Your task to perform on an android device: toggle data saver in the chrome app Image 0: 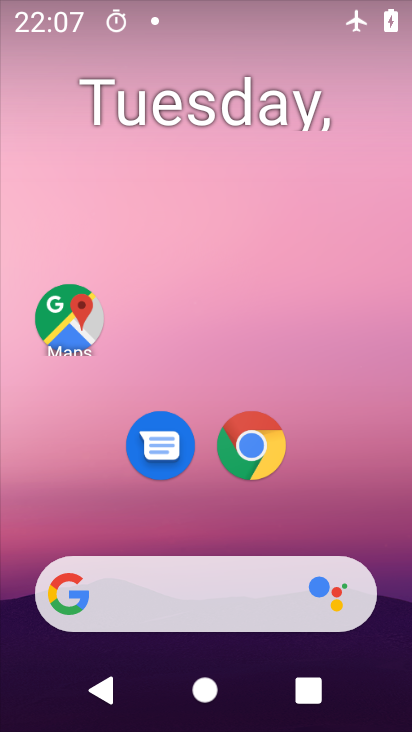
Step 0: click (241, 451)
Your task to perform on an android device: toggle data saver in the chrome app Image 1: 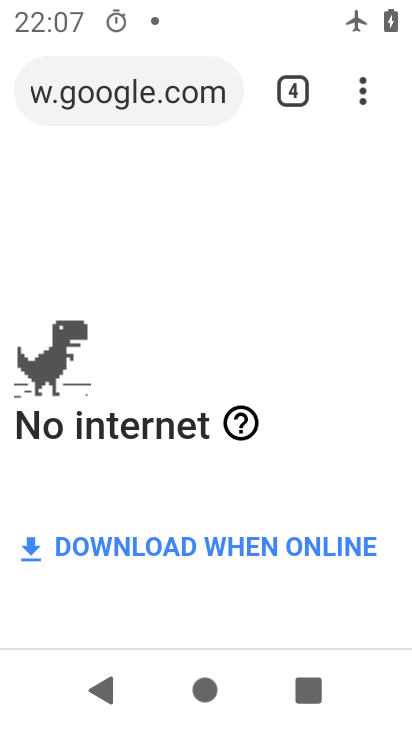
Step 1: click (383, 89)
Your task to perform on an android device: toggle data saver in the chrome app Image 2: 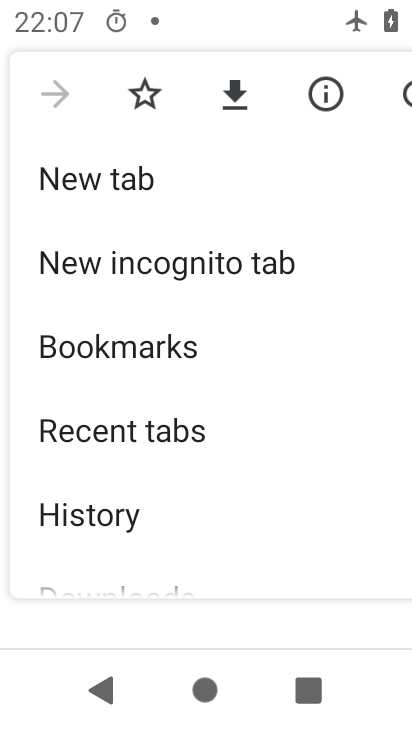
Step 2: drag from (225, 539) to (201, 10)
Your task to perform on an android device: toggle data saver in the chrome app Image 3: 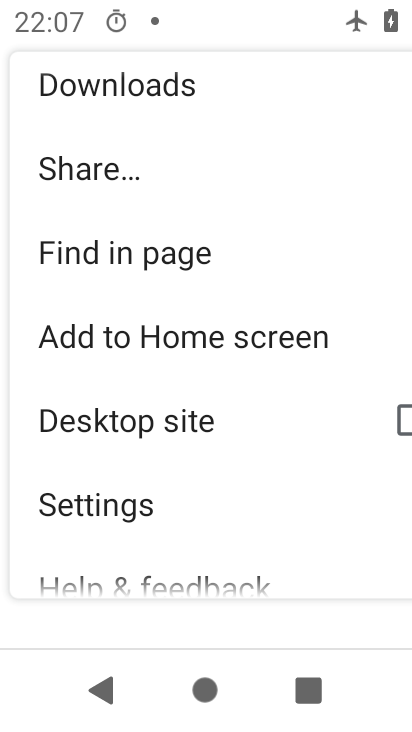
Step 3: click (171, 507)
Your task to perform on an android device: toggle data saver in the chrome app Image 4: 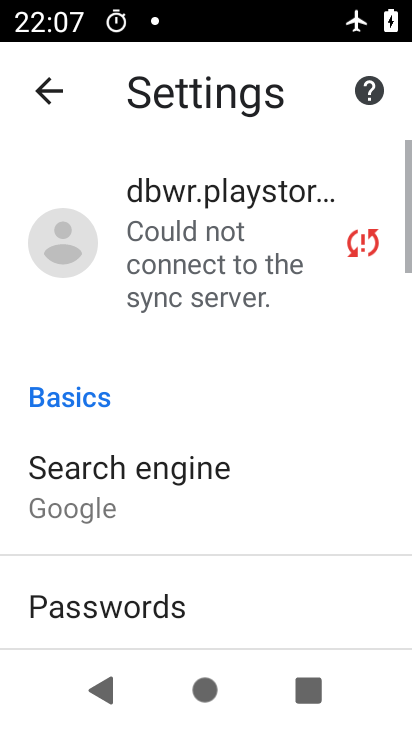
Step 4: drag from (171, 507) to (153, 276)
Your task to perform on an android device: toggle data saver in the chrome app Image 5: 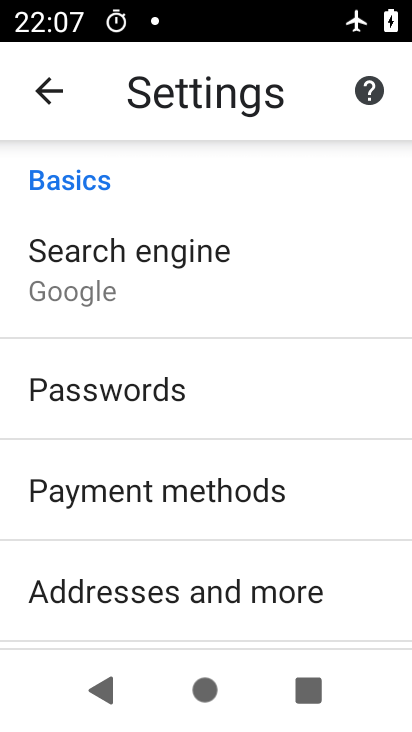
Step 5: drag from (207, 632) to (161, 143)
Your task to perform on an android device: toggle data saver in the chrome app Image 6: 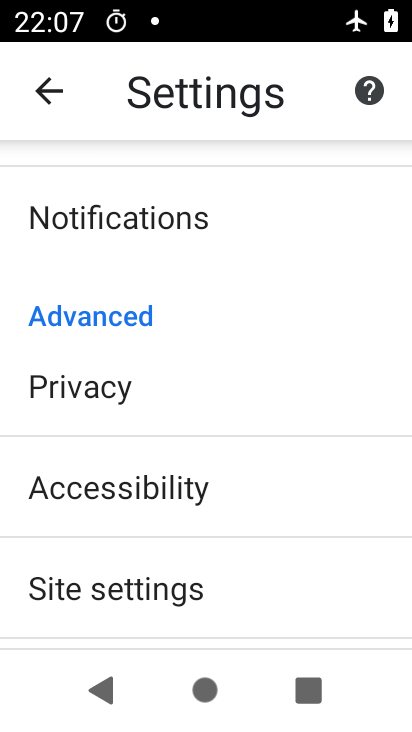
Step 6: drag from (221, 598) to (200, 164)
Your task to perform on an android device: toggle data saver in the chrome app Image 7: 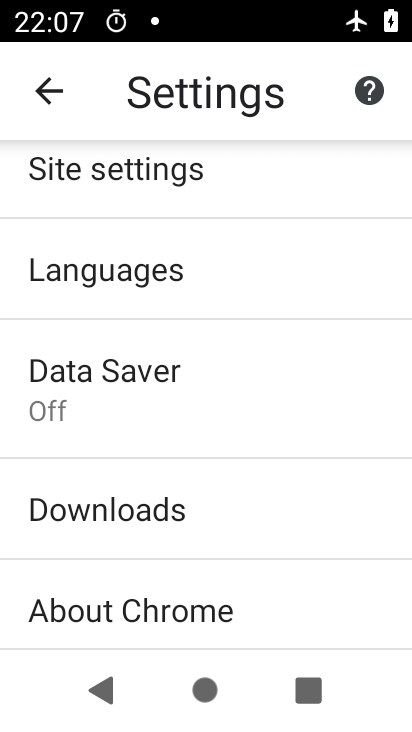
Step 7: click (184, 350)
Your task to perform on an android device: toggle data saver in the chrome app Image 8: 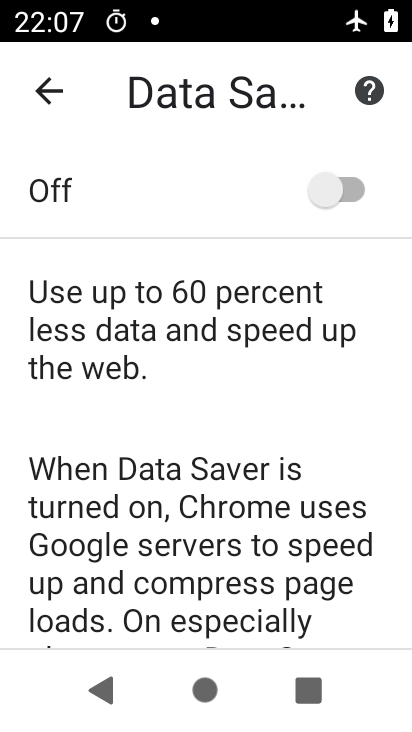
Step 8: click (354, 199)
Your task to perform on an android device: toggle data saver in the chrome app Image 9: 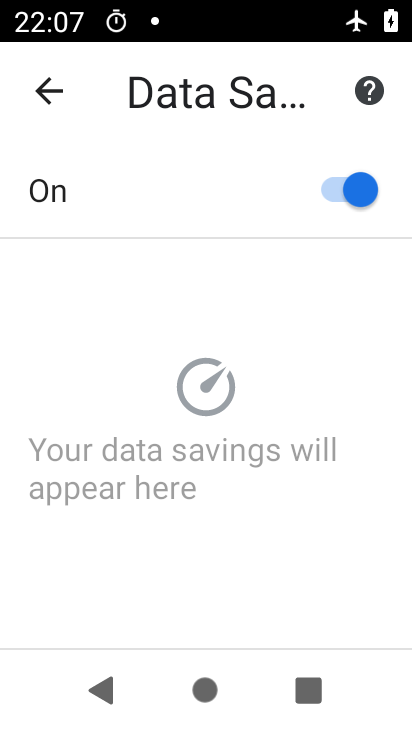
Step 9: task complete